Your task to perform on an android device: Open calendar and show me the fourth week of next month Image 0: 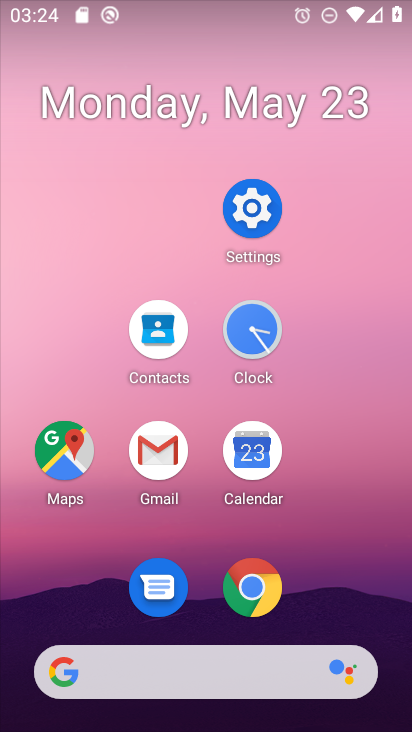
Step 0: drag from (342, 601) to (407, 132)
Your task to perform on an android device: Open calendar and show me the fourth week of next month Image 1: 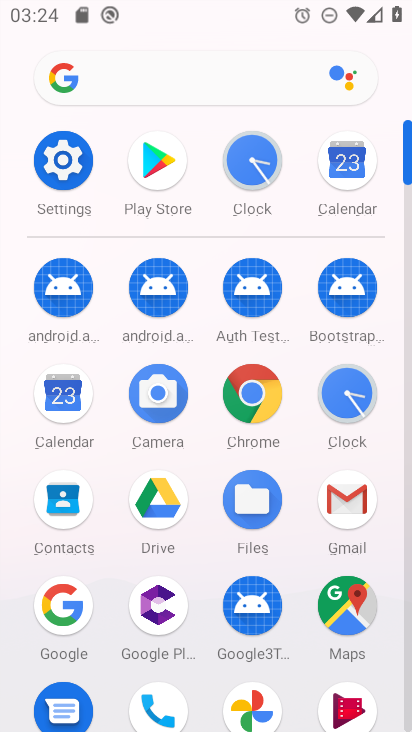
Step 1: click (351, 193)
Your task to perform on an android device: Open calendar and show me the fourth week of next month Image 2: 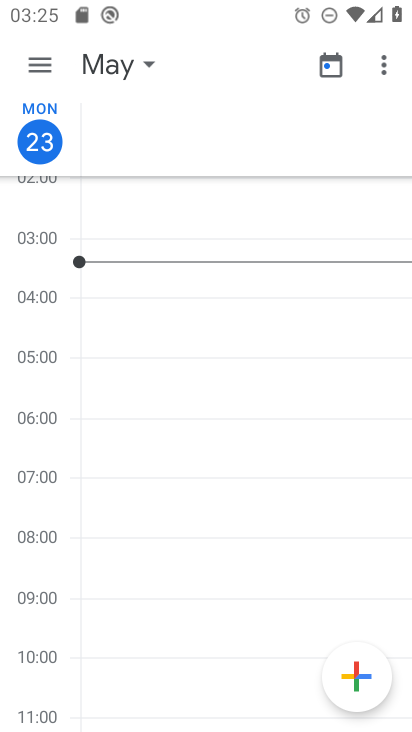
Step 2: click (119, 62)
Your task to perform on an android device: Open calendar and show me the fourth week of next month Image 3: 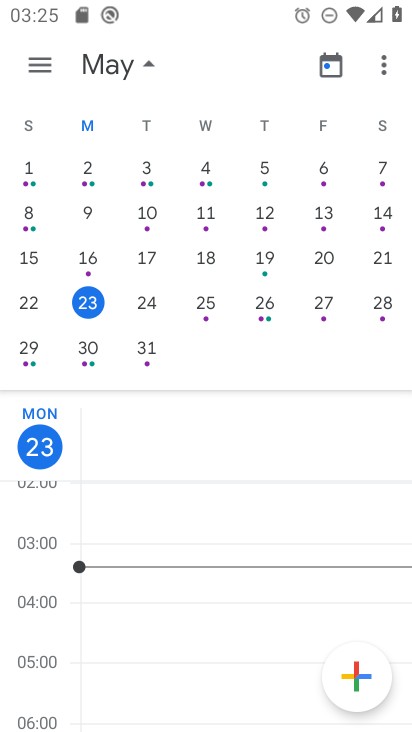
Step 3: drag from (381, 339) to (1, 234)
Your task to perform on an android device: Open calendar and show me the fourth week of next month Image 4: 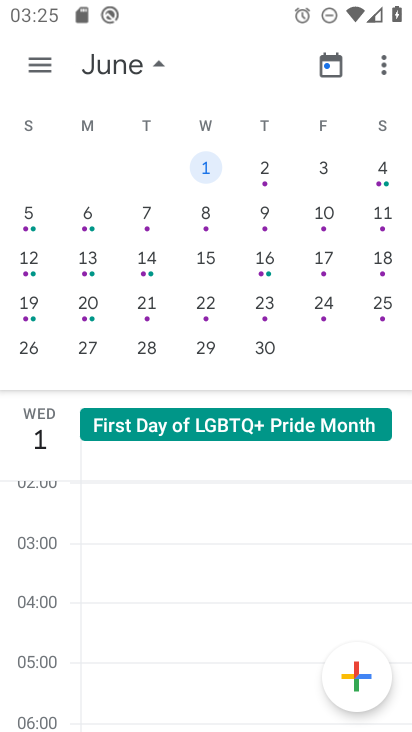
Step 4: click (212, 238)
Your task to perform on an android device: Open calendar and show me the fourth week of next month Image 5: 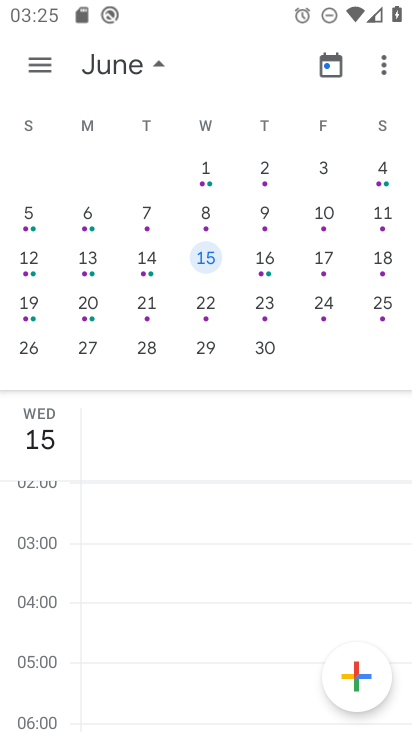
Step 5: task complete